Your task to perform on an android device: toggle data saver in the chrome app Image 0: 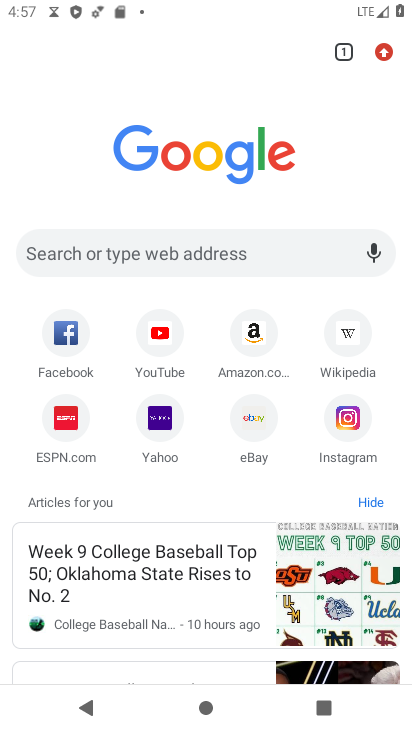
Step 0: click (382, 52)
Your task to perform on an android device: toggle data saver in the chrome app Image 1: 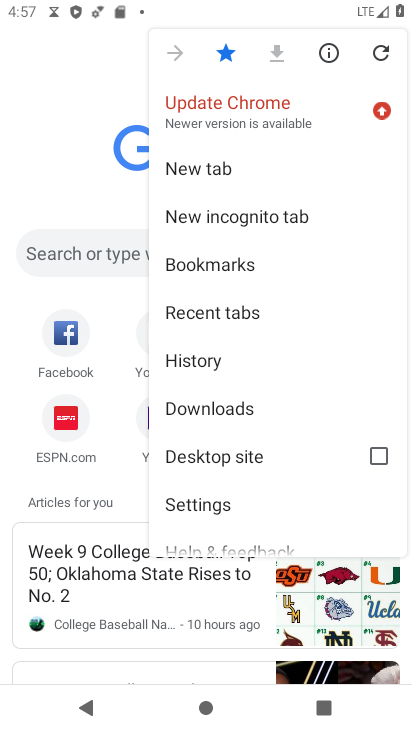
Step 1: click (207, 495)
Your task to perform on an android device: toggle data saver in the chrome app Image 2: 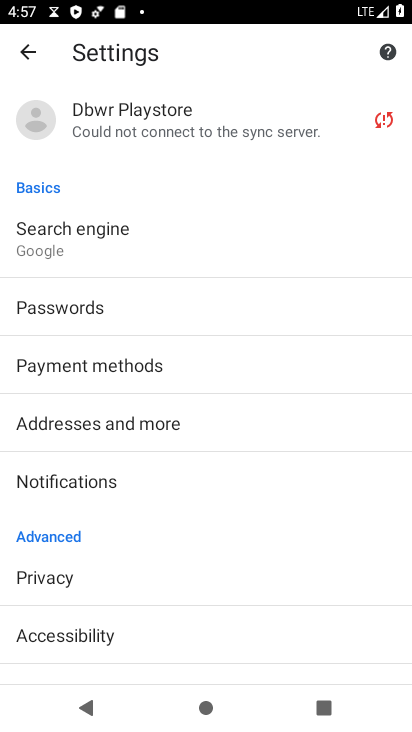
Step 2: drag from (113, 483) to (174, 320)
Your task to perform on an android device: toggle data saver in the chrome app Image 3: 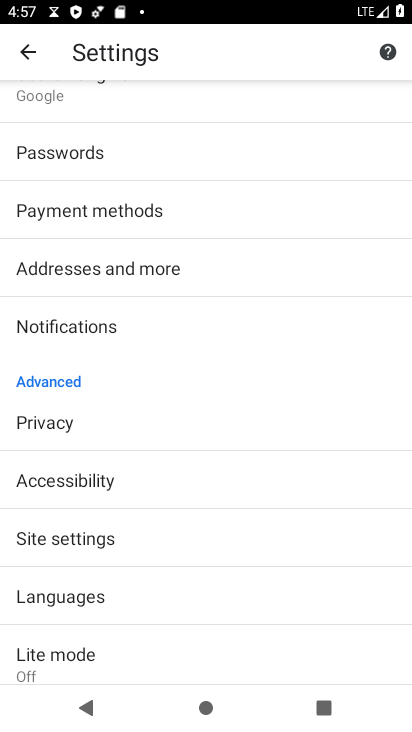
Step 3: drag from (148, 535) to (192, 450)
Your task to perform on an android device: toggle data saver in the chrome app Image 4: 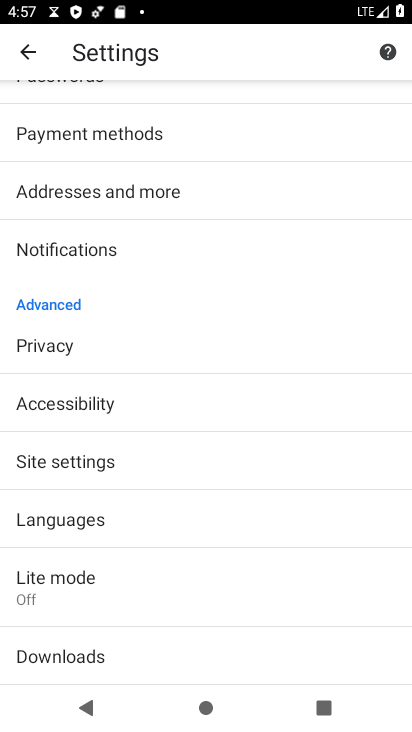
Step 4: click (94, 574)
Your task to perform on an android device: toggle data saver in the chrome app Image 5: 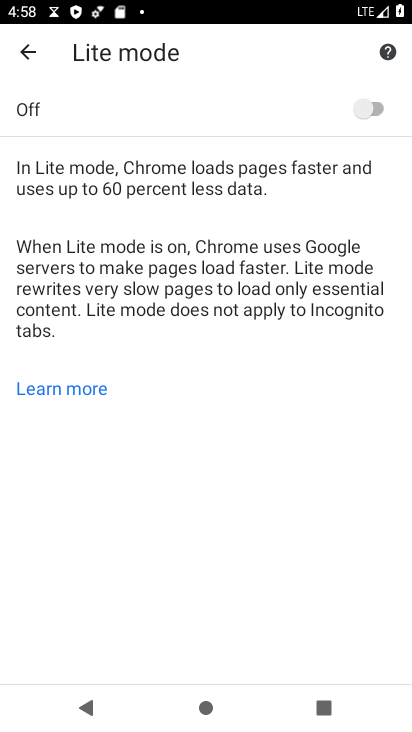
Step 5: click (370, 117)
Your task to perform on an android device: toggle data saver in the chrome app Image 6: 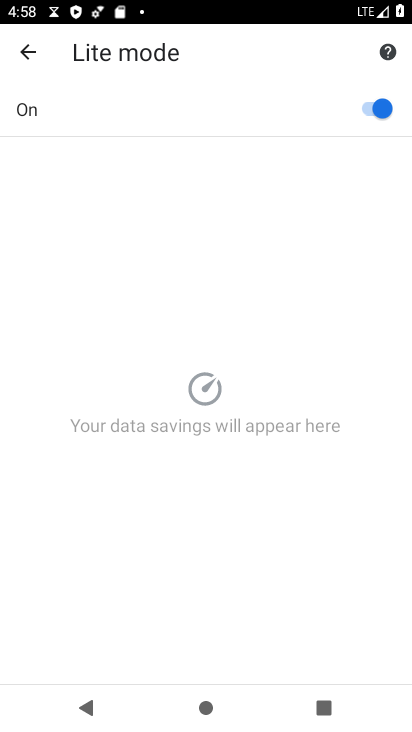
Step 6: task complete